Your task to perform on an android device: Open calendar and show me the second week of next month Image 0: 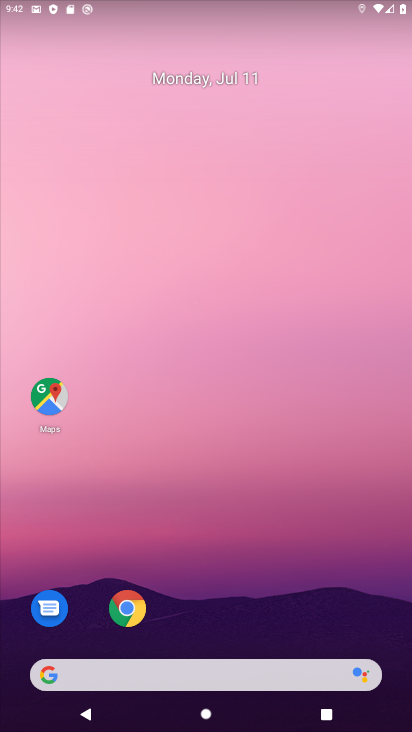
Step 0: drag from (354, 645) to (277, 190)
Your task to perform on an android device: Open calendar and show me the second week of next month Image 1: 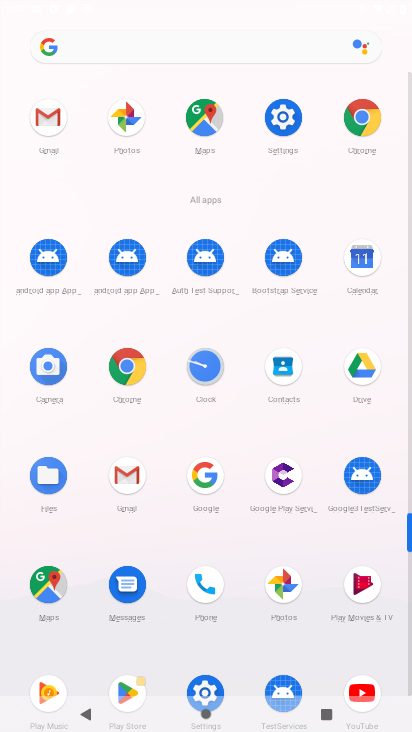
Step 1: press back button
Your task to perform on an android device: Open calendar and show me the second week of next month Image 2: 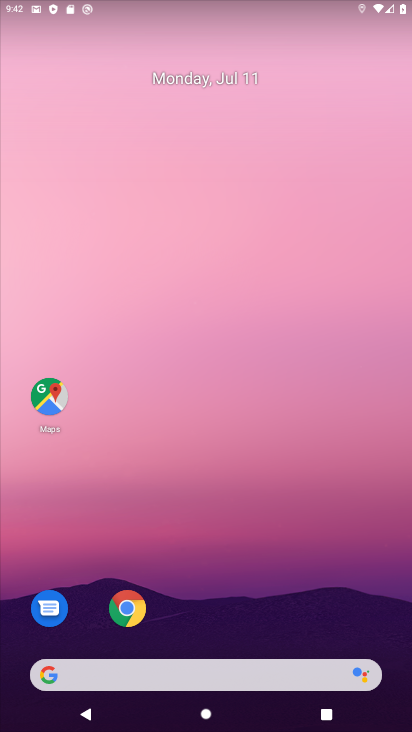
Step 2: drag from (314, 202) to (295, 71)
Your task to perform on an android device: Open calendar and show me the second week of next month Image 3: 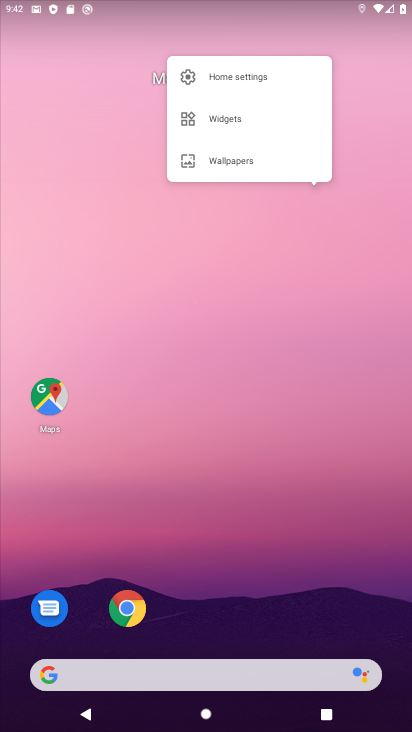
Step 3: drag from (208, 179) to (188, 105)
Your task to perform on an android device: Open calendar and show me the second week of next month Image 4: 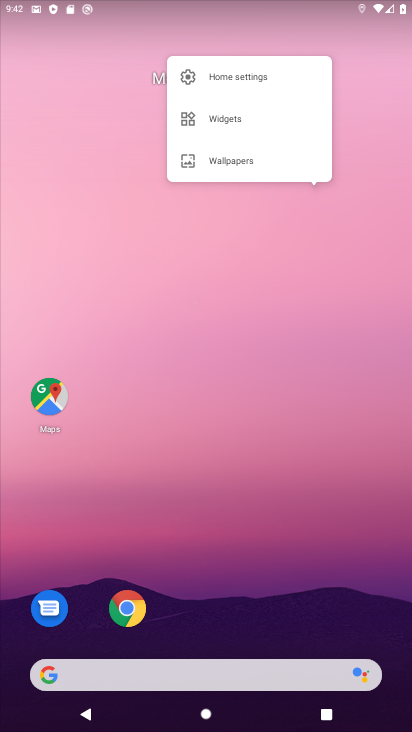
Step 4: drag from (257, 629) to (185, 145)
Your task to perform on an android device: Open calendar and show me the second week of next month Image 5: 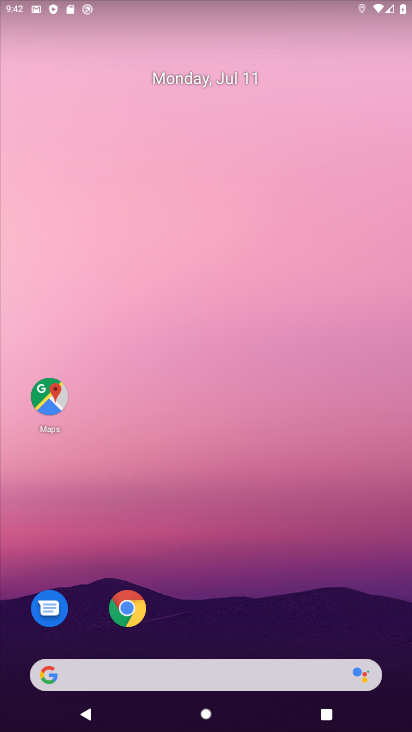
Step 5: drag from (209, 662) to (184, 254)
Your task to perform on an android device: Open calendar and show me the second week of next month Image 6: 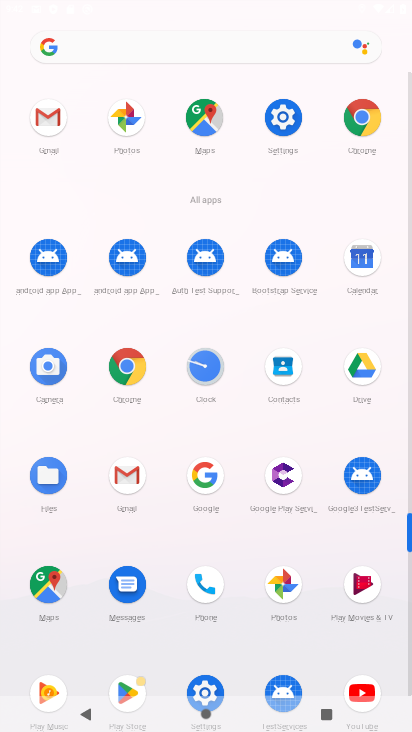
Step 6: click (372, 266)
Your task to perform on an android device: Open calendar and show me the second week of next month Image 7: 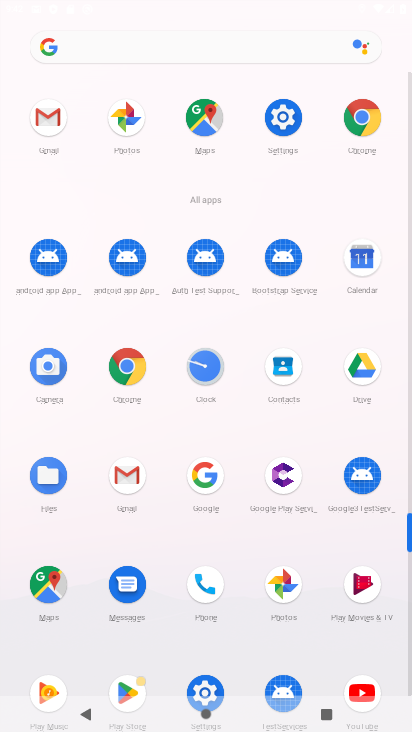
Step 7: click (366, 259)
Your task to perform on an android device: Open calendar and show me the second week of next month Image 8: 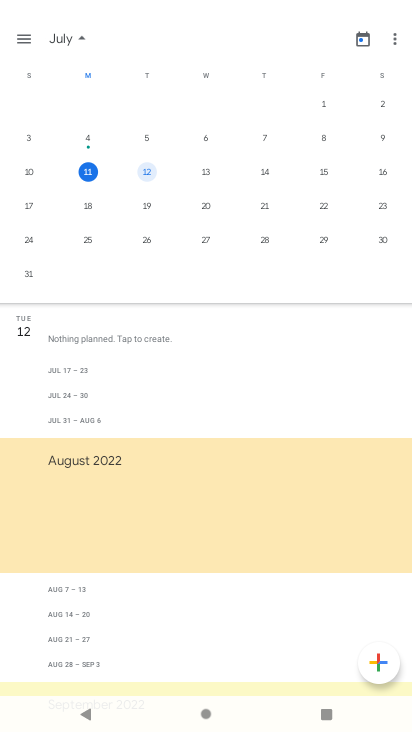
Step 8: drag from (310, 129) to (105, 165)
Your task to perform on an android device: Open calendar and show me the second week of next month Image 9: 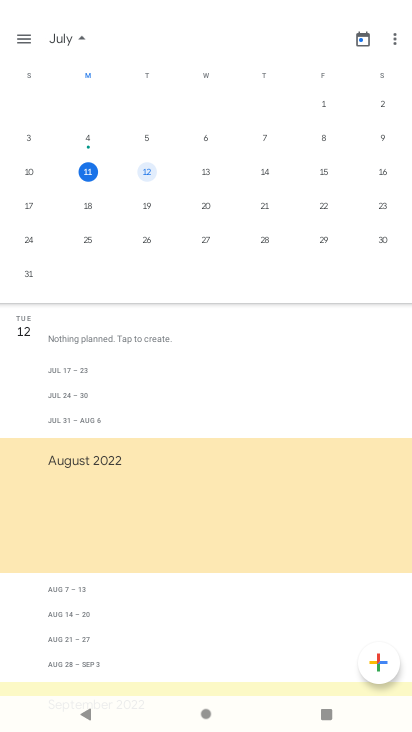
Step 9: drag from (290, 144) to (9, 159)
Your task to perform on an android device: Open calendar and show me the second week of next month Image 10: 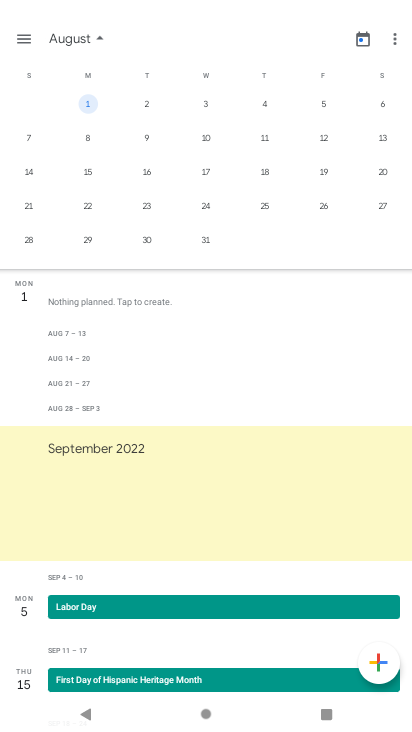
Step 10: drag from (330, 179) to (8, 196)
Your task to perform on an android device: Open calendar and show me the second week of next month Image 11: 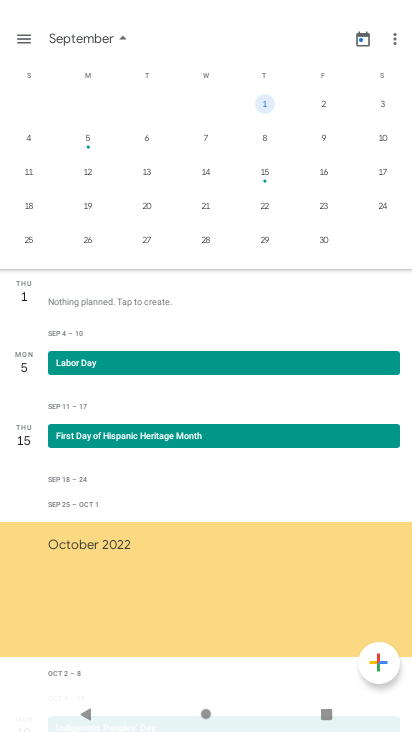
Step 11: drag from (80, 163) to (383, 192)
Your task to perform on an android device: Open calendar and show me the second week of next month Image 12: 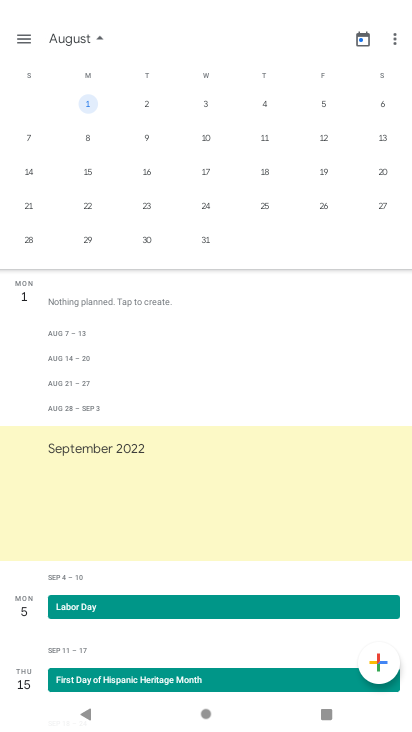
Step 12: click (143, 132)
Your task to perform on an android device: Open calendar and show me the second week of next month Image 13: 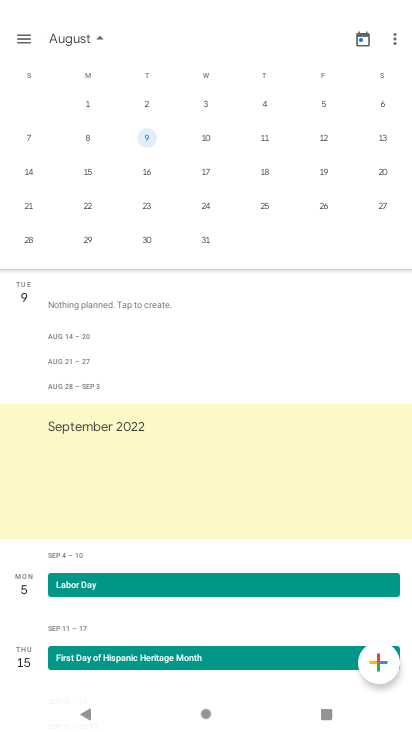
Step 13: click (143, 132)
Your task to perform on an android device: Open calendar and show me the second week of next month Image 14: 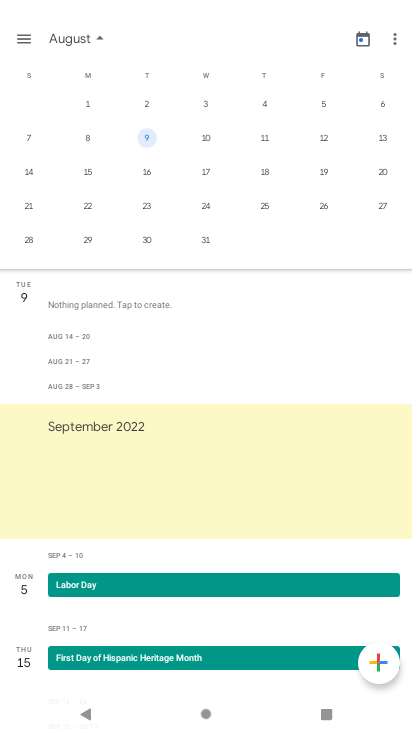
Step 14: task complete